Your task to perform on an android device: Open internet settings Image 0: 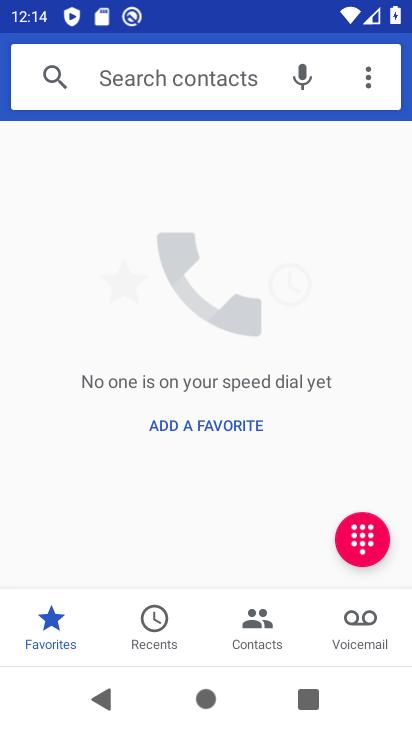
Step 0: press home button
Your task to perform on an android device: Open internet settings Image 1: 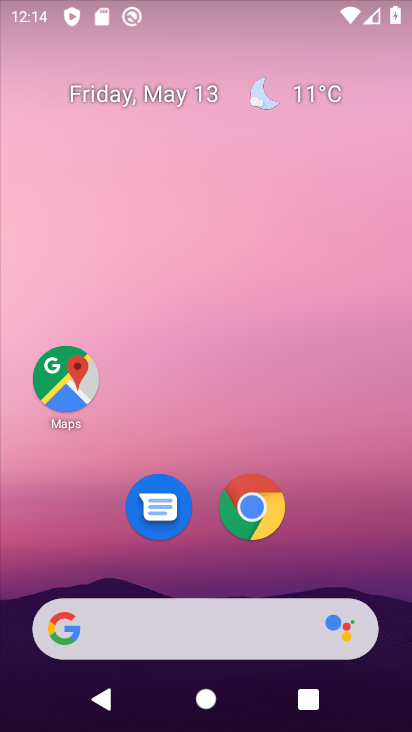
Step 1: drag from (224, 584) to (177, 5)
Your task to perform on an android device: Open internet settings Image 2: 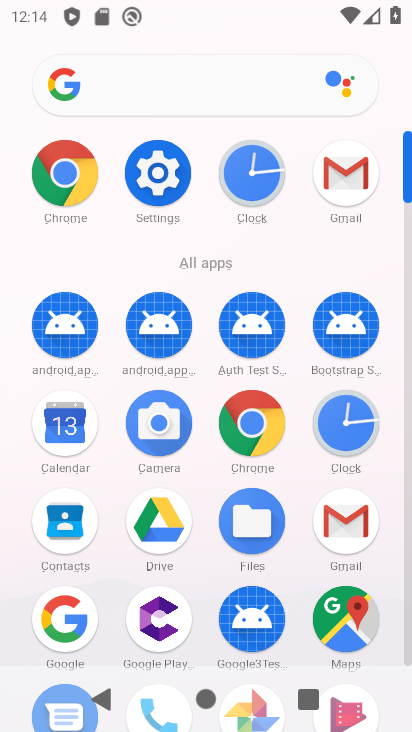
Step 2: click (173, 156)
Your task to perform on an android device: Open internet settings Image 3: 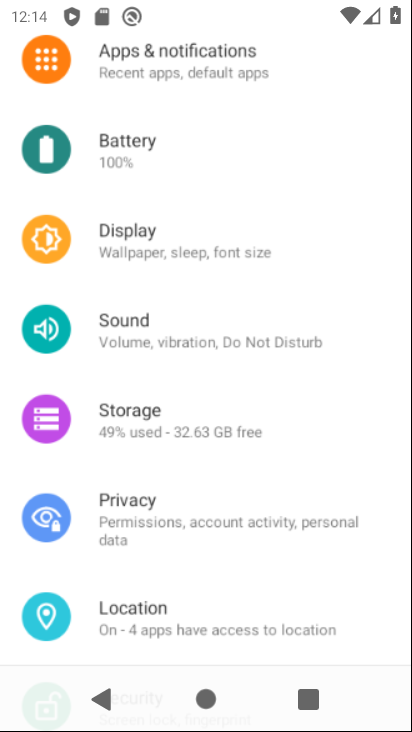
Step 3: drag from (180, 184) to (189, 602)
Your task to perform on an android device: Open internet settings Image 4: 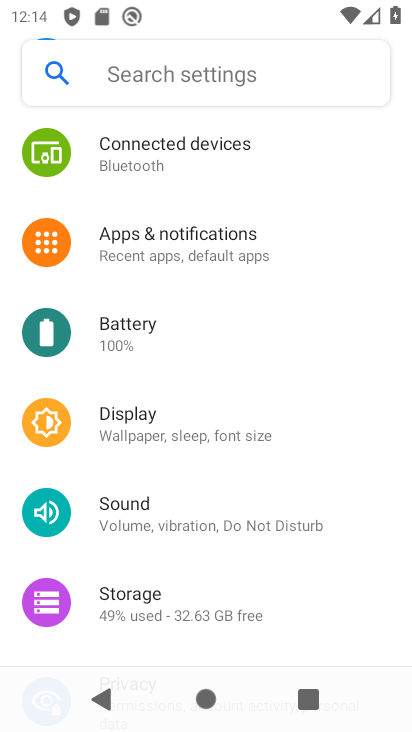
Step 4: drag from (219, 151) to (206, 579)
Your task to perform on an android device: Open internet settings Image 5: 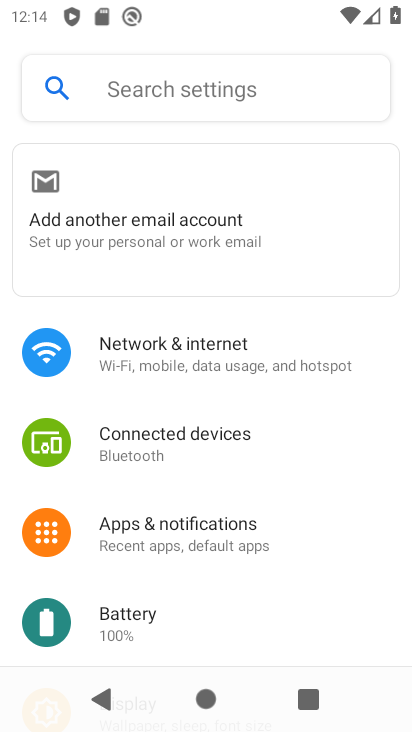
Step 5: click (162, 362)
Your task to perform on an android device: Open internet settings Image 6: 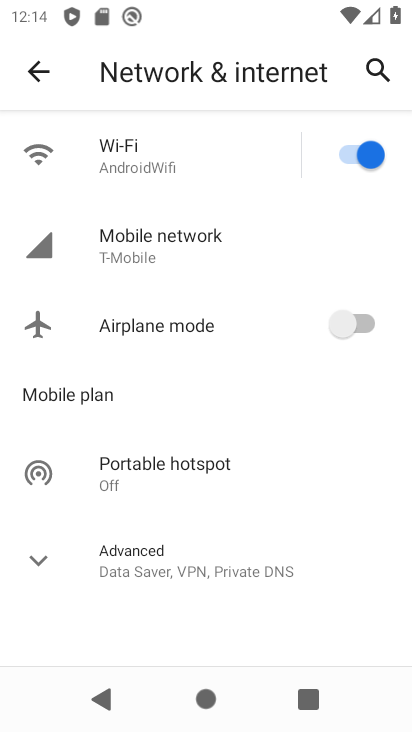
Step 6: click (201, 260)
Your task to perform on an android device: Open internet settings Image 7: 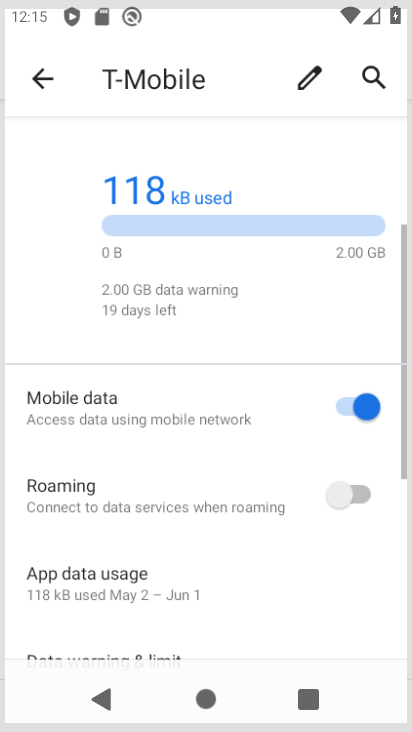
Step 7: task complete